Your task to perform on an android device: Open eBay Image 0: 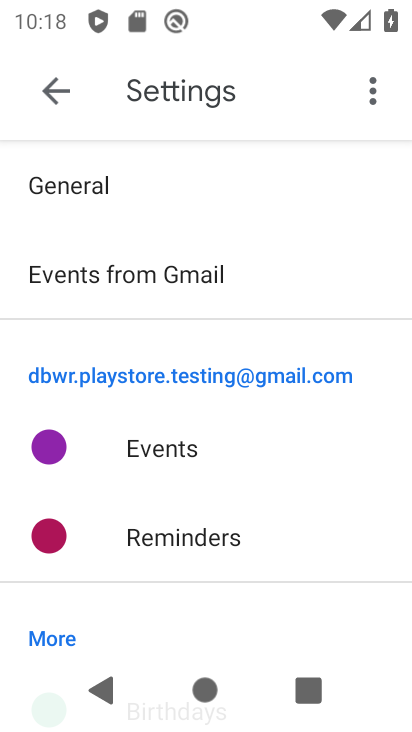
Step 0: press home button
Your task to perform on an android device: Open eBay Image 1: 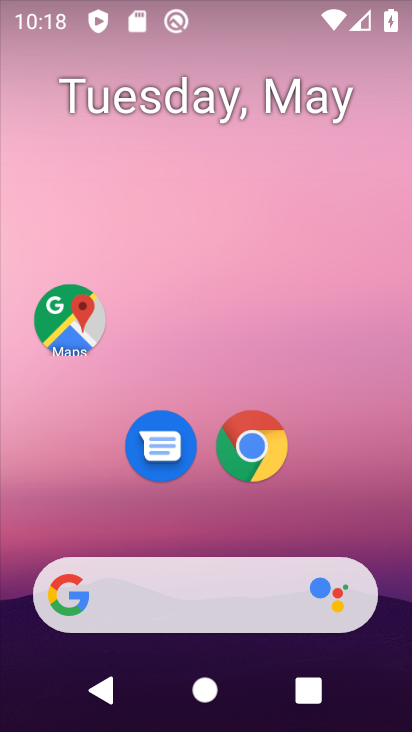
Step 1: click (244, 446)
Your task to perform on an android device: Open eBay Image 2: 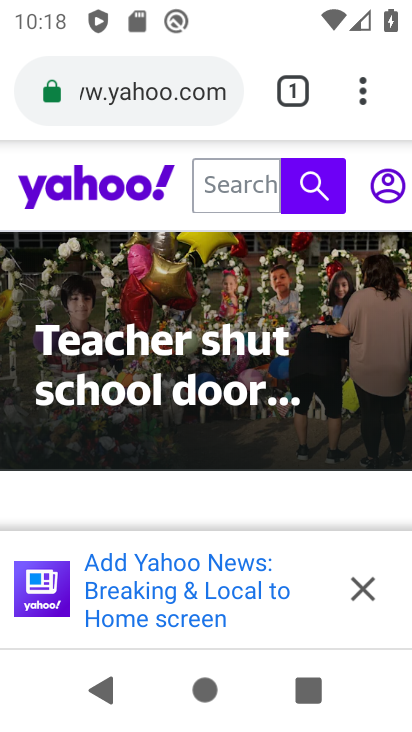
Step 2: click (123, 87)
Your task to perform on an android device: Open eBay Image 3: 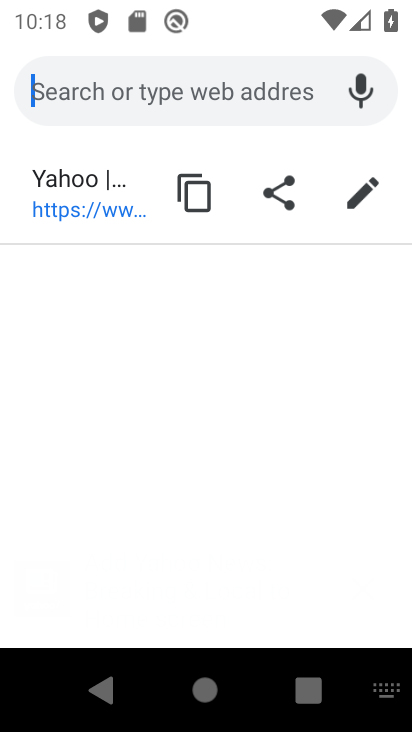
Step 3: type "eBay"
Your task to perform on an android device: Open eBay Image 4: 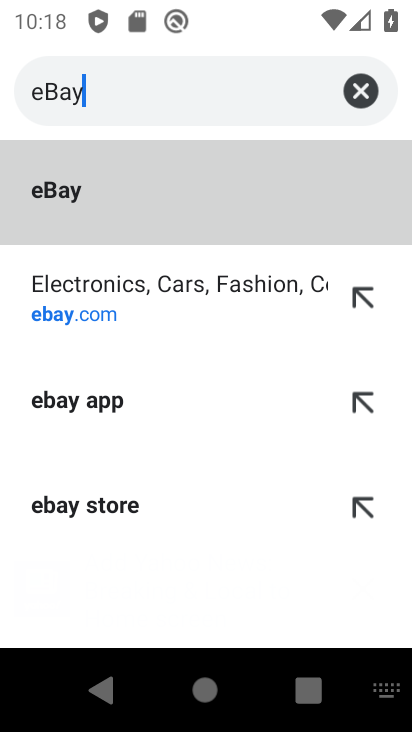
Step 4: click (134, 211)
Your task to perform on an android device: Open eBay Image 5: 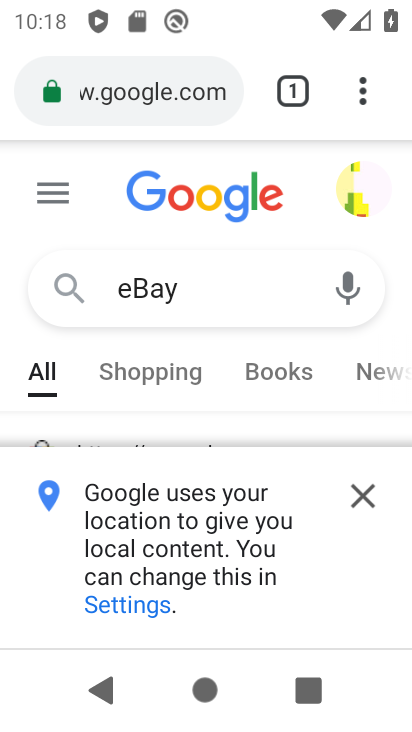
Step 5: click (357, 507)
Your task to perform on an android device: Open eBay Image 6: 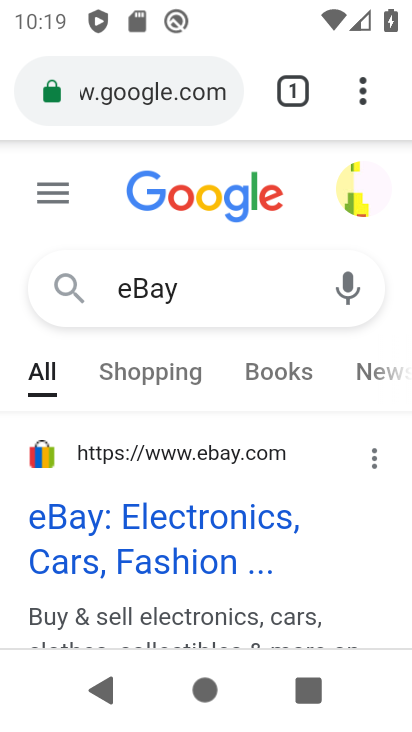
Step 6: task complete